Your task to perform on an android device: toggle translation in the chrome app Image 0: 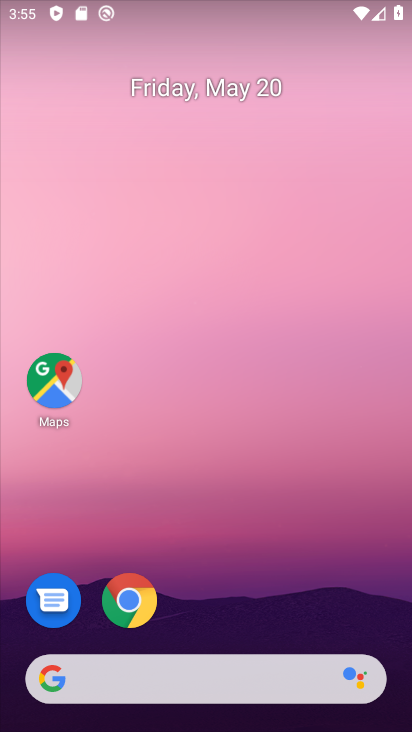
Step 0: click (133, 607)
Your task to perform on an android device: toggle translation in the chrome app Image 1: 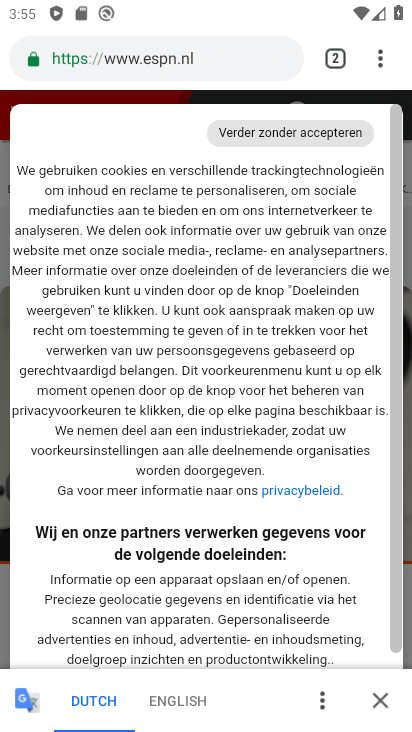
Step 1: drag from (384, 61) to (180, 631)
Your task to perform on an android device: toggle translation in the chrome app Image 2: 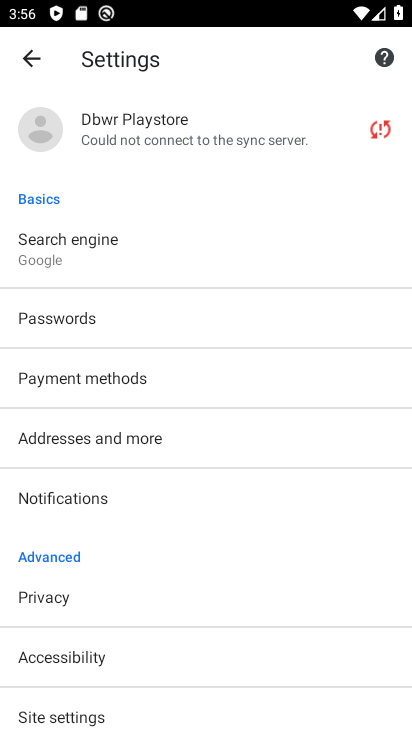
Step 2: drag from (91, 680) to (157, 361)
Your task to perform on an android device: toggle translation in the chrome app Image 3: 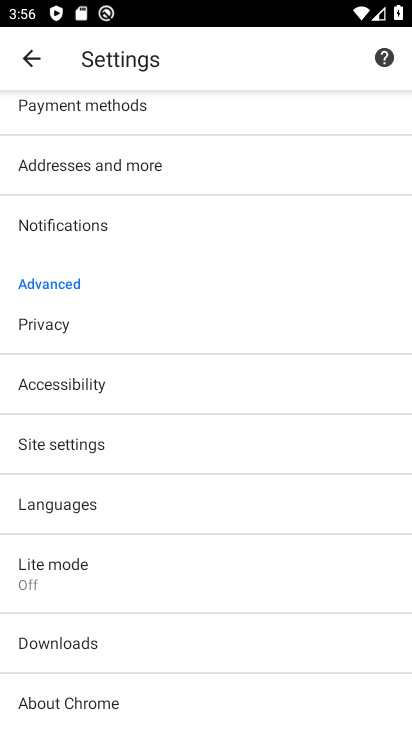
Step 3: click (64, 509)
Your task to perform on an android device: toggle translation in the chrome app Image 4: 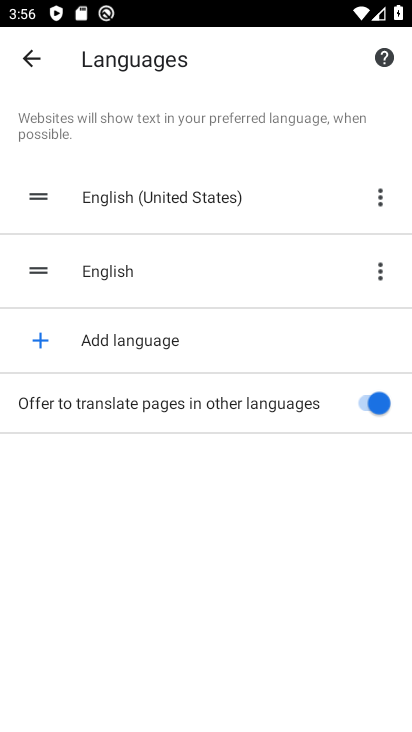
Step 4: click (372, 403)
Your task to perform on an android device: toggle translation in the chrome app Image 5: 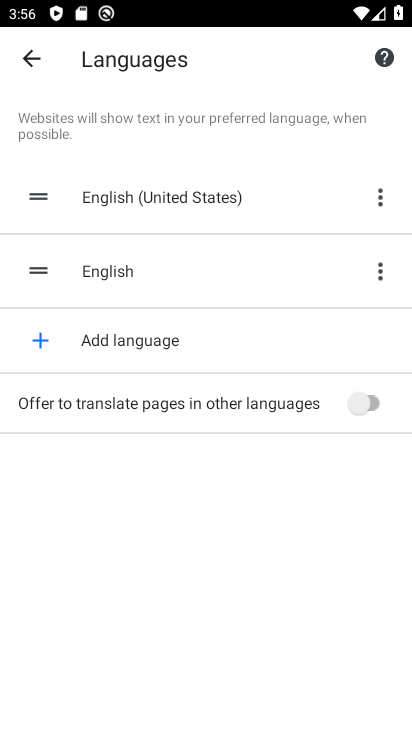
Step 5: task complete